Your task to perform on an android device: snooze an email in the gmail app Image 0: 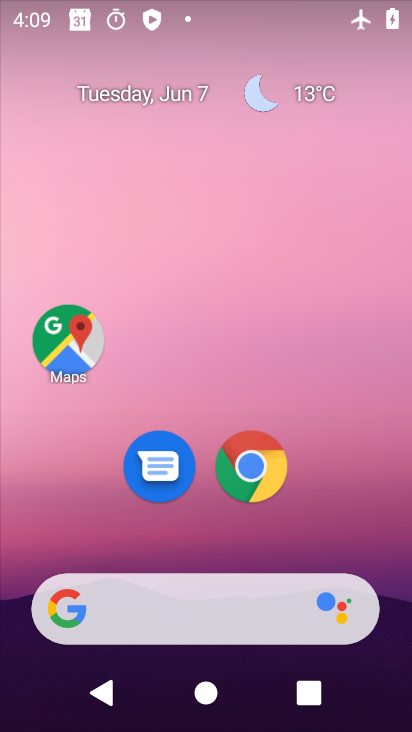
Step 0: drag from (400, 567) to (298, 240)
Your task to perform on an android device: snooze an email in the gmail app Image 1: 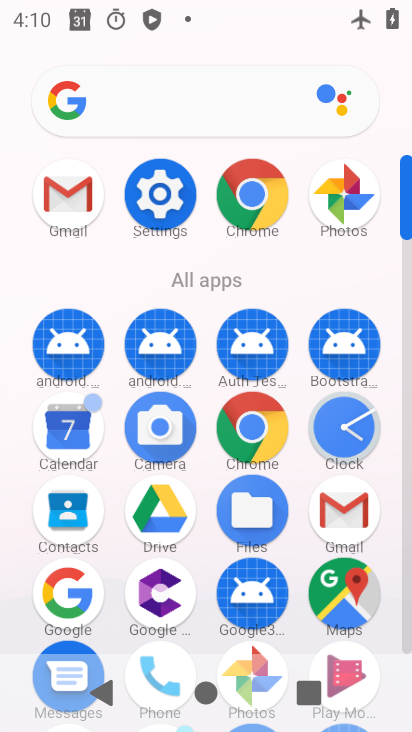
Step 1: click (77, 190)
Your task to perform on an android device: snooze an email in the gmail app Image 2: 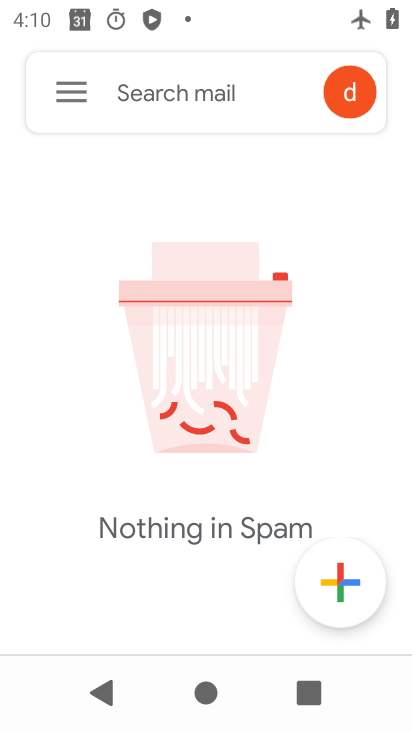
Step 2: click (75, 87)
Your task to perform on an android device: snooze an email in the gmail app Image 3: 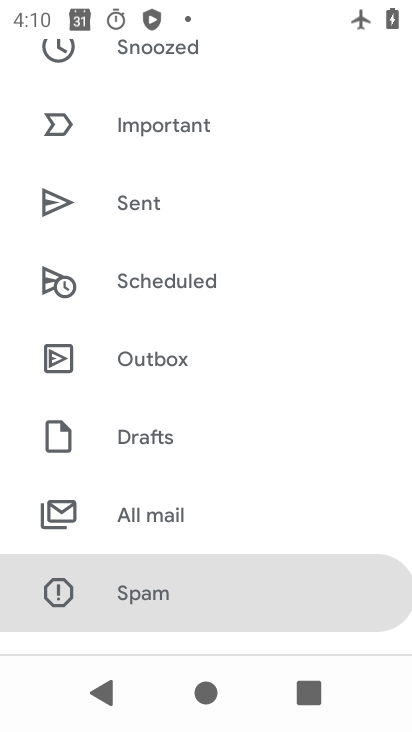
Step 3: drag from (196, 166) to (265, 642)
Your task to perform on an android device: snooze an email in the gmail app Image 4: 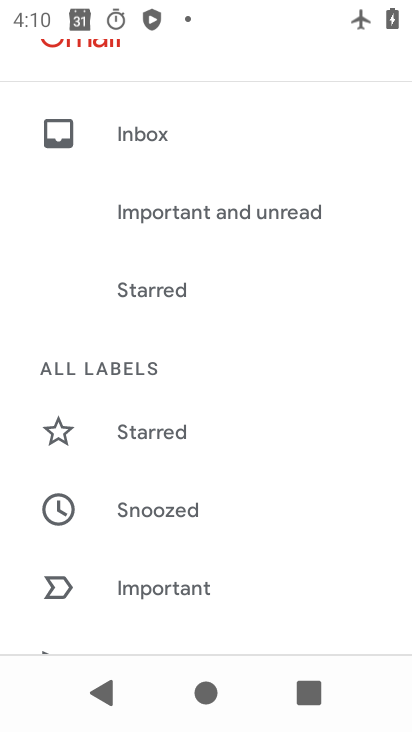
Step 4: click (162, 146)
Your task to perform on an android device: snooze an email in the gmail app Image 5: 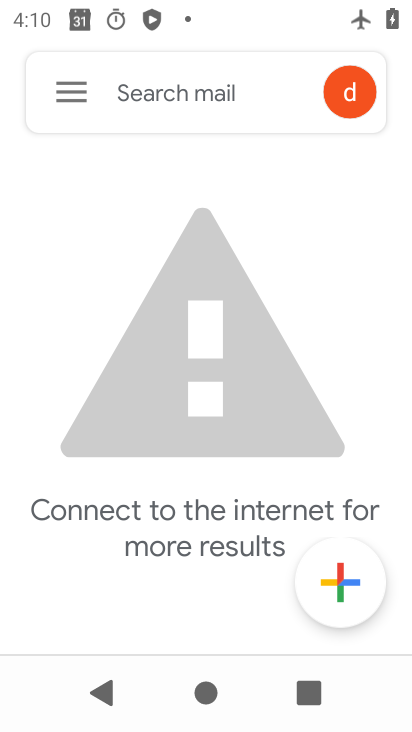
Step 5: task complete